Your task to perform on an android device: Go to CNN.com Image 0: 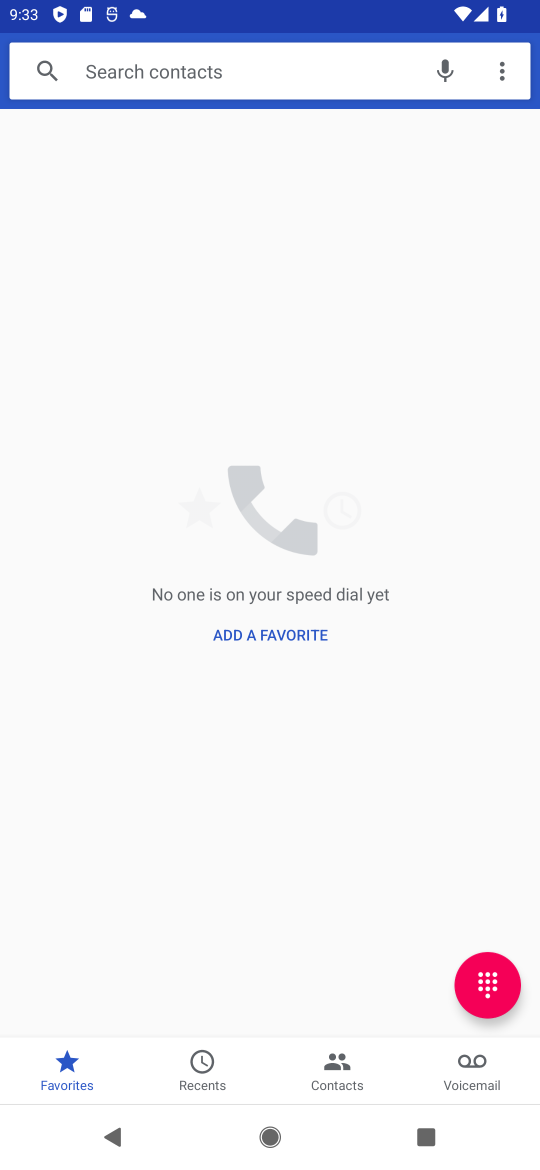
Step 0: press home button
Your task to perform on an android device: Go to CNN.com Image 1: 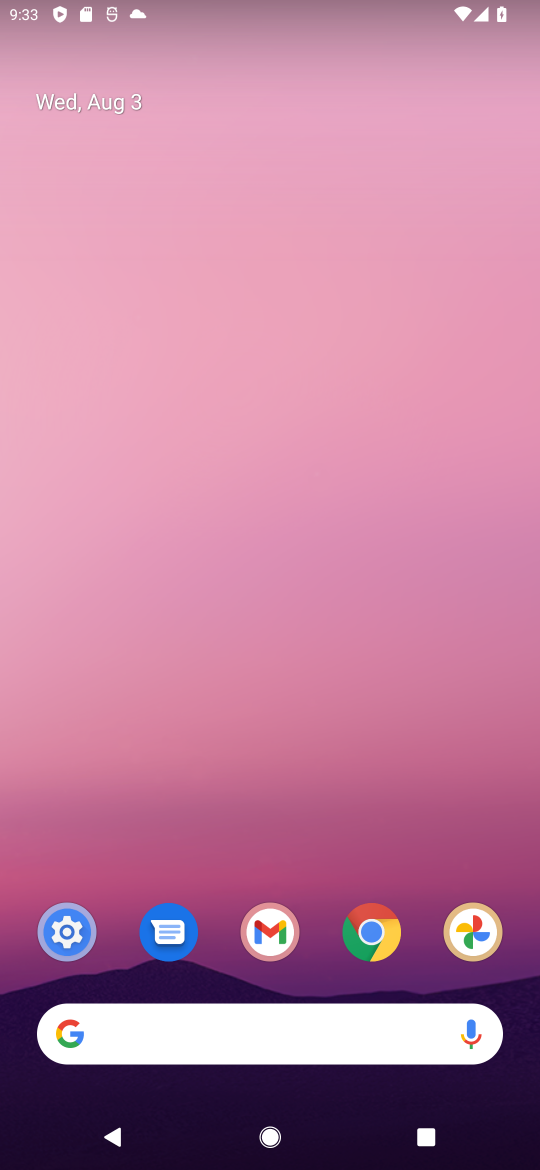
Step 1: drag from (428, 855) to (318, 138)
Your task to perform on an android device: Go to CNN.com Image 2: 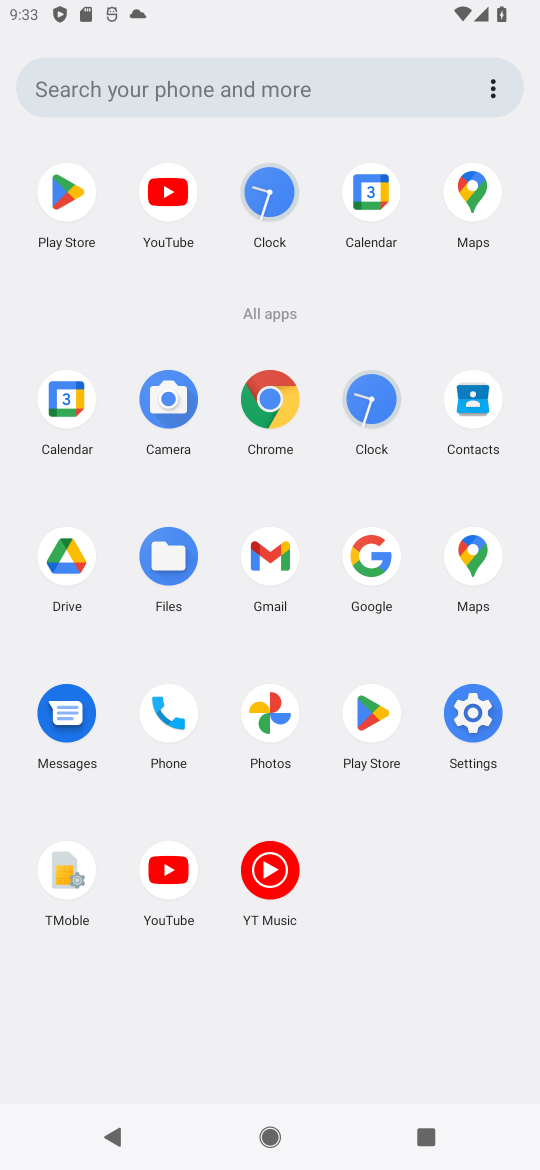
Step 2: click (270, 415)
Your task to perform on an android device: Go to CNN.com Image 3: 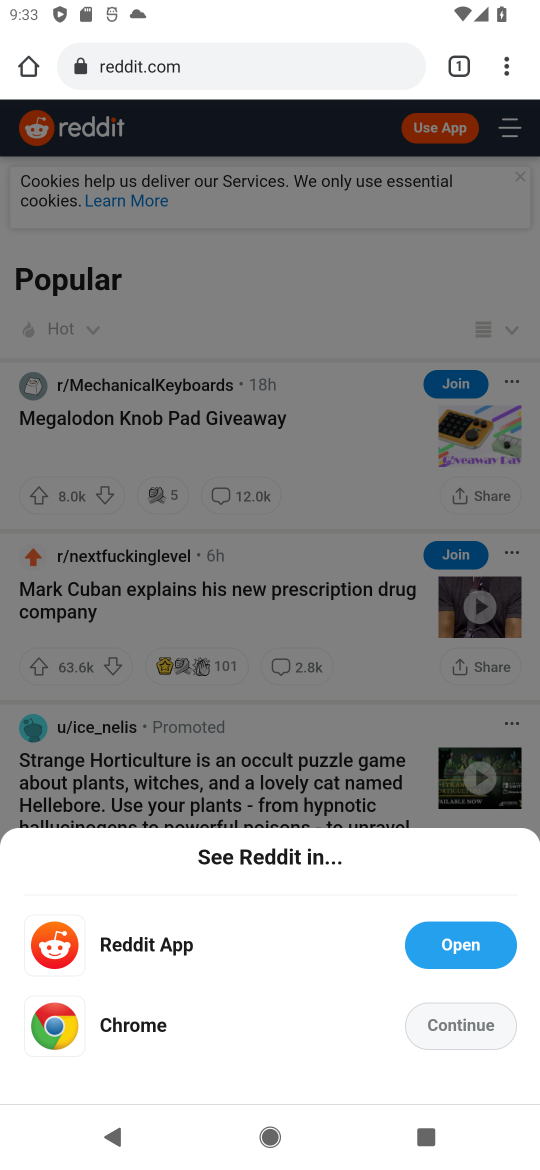
Step 3: click (214, 69)
Your task to perform on an android device: Go to CNN.com Image 4: 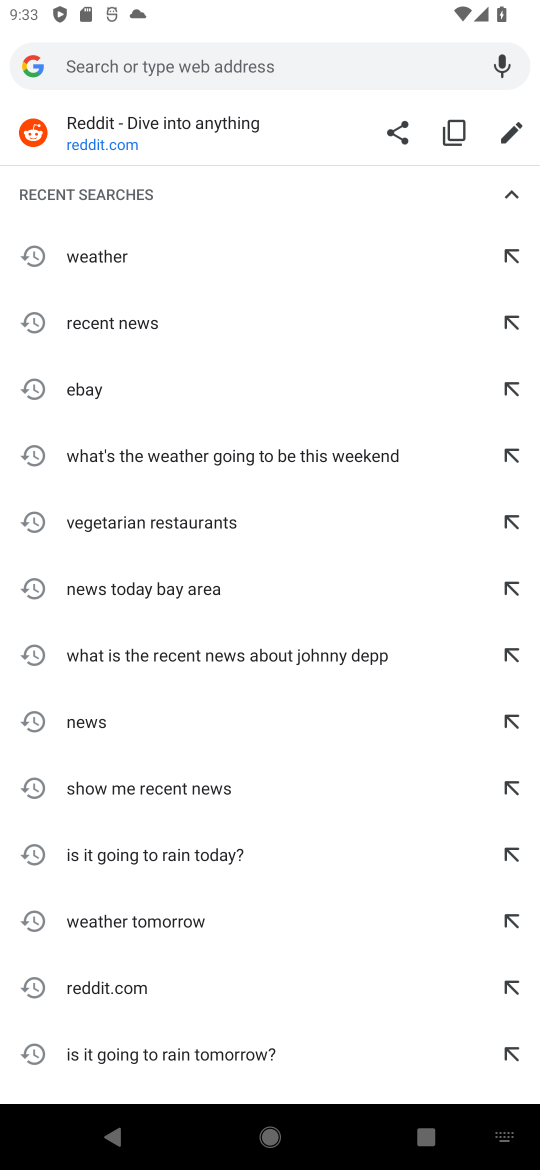
Step 4: type "cnn.com"
Your task to perform on an android device: Go to CNN.com Image 5: 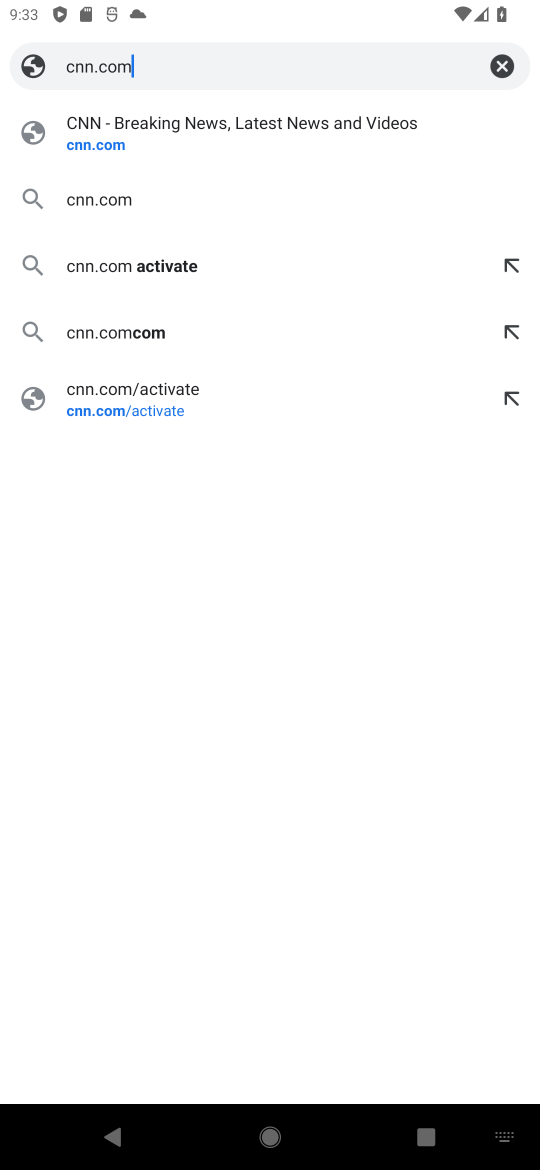
Step 5: click (403, 120)
Your task to perform on an android device: Go to CNN.com Image 6: 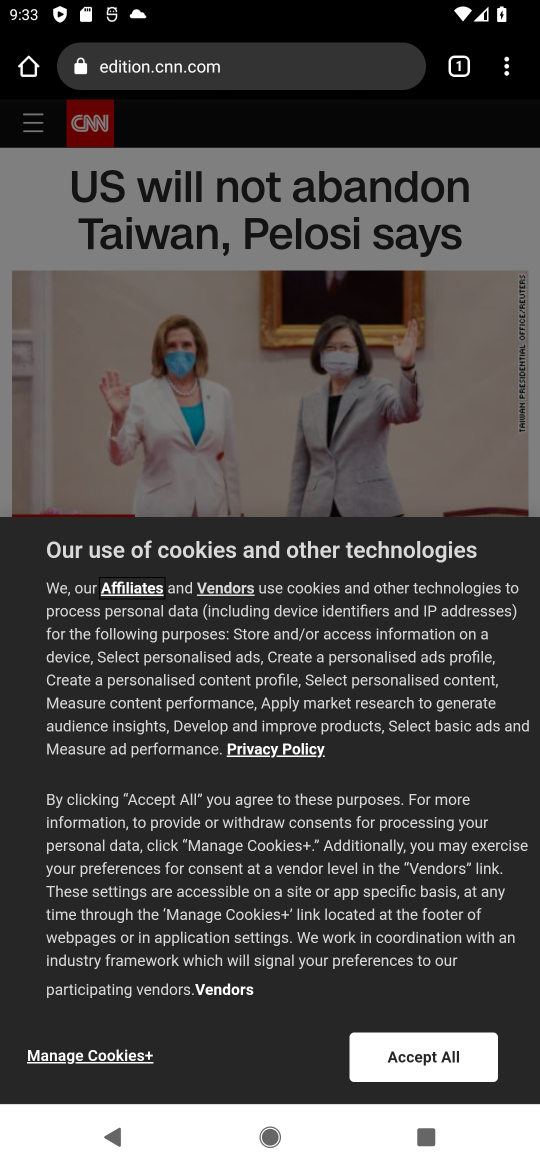
Step 6: task complete